Your task to perform on an android device: Open Google Image 0: 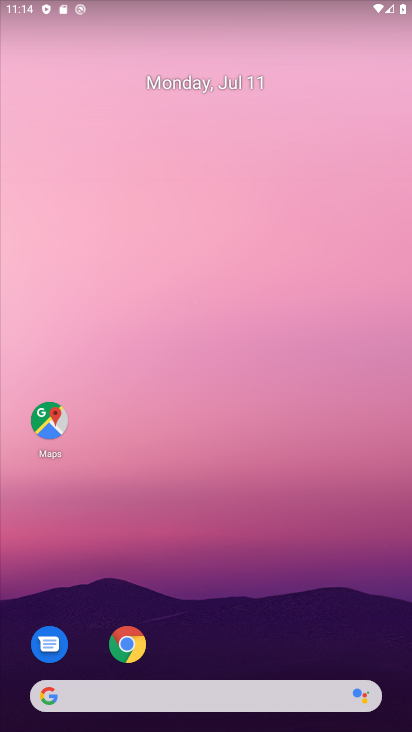
Step 0: drag from (399, 707) to (290, 90)
Your task to perform on an android device: Open Google Image 1: 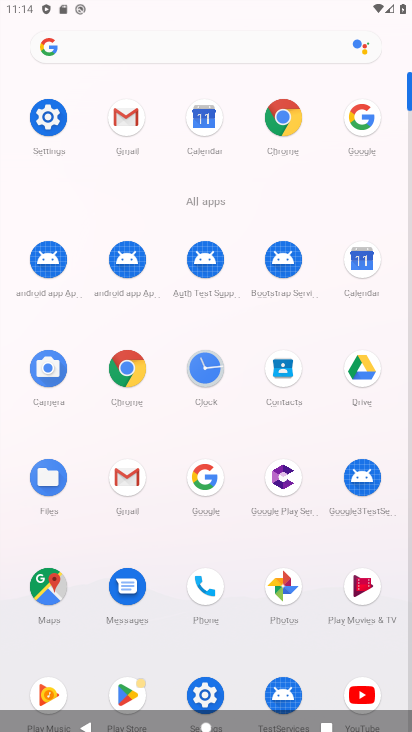
Step 1: click (212, 482)
Your task to perform on an android device: Open Google Image 2: 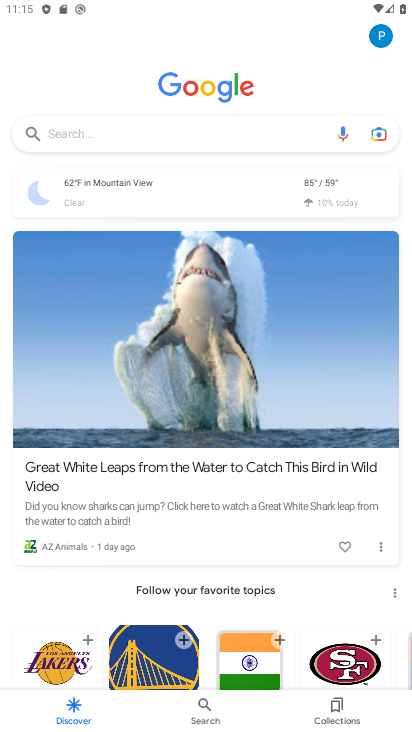
Step 2: task complete